Your task to perform on an android device: Open accessibility settings Image 0: 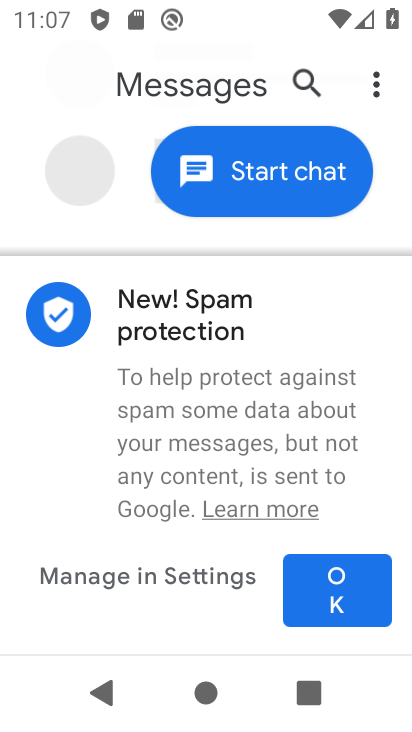
Step 0: drag from (237, 430) to (286, 225)
Your task to perform on an android device: Open accessibility settings Image 1: 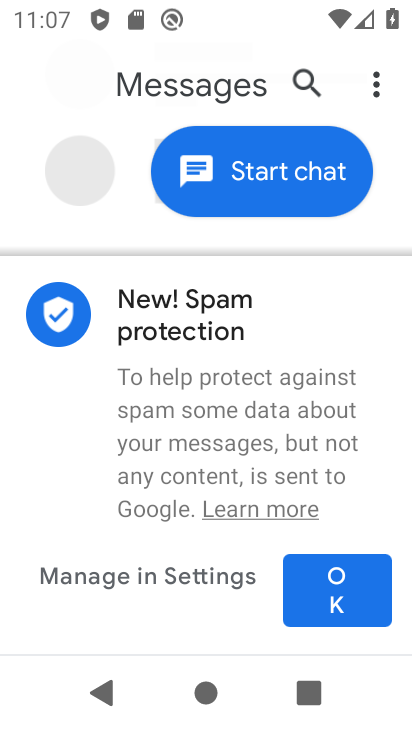
Step 1: press home button
Your task to perform on an android device: Open accessibility settings Image 2: 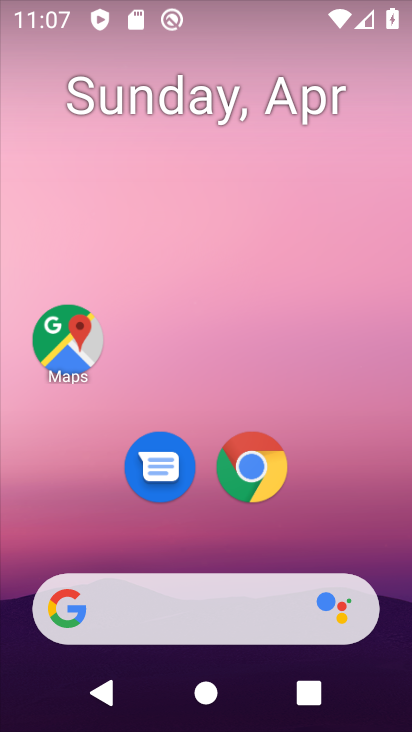
Step 2: drag from (188, 538) to (239, 241)
Your task to perform on an android device: Open accessibility settings Image 3: 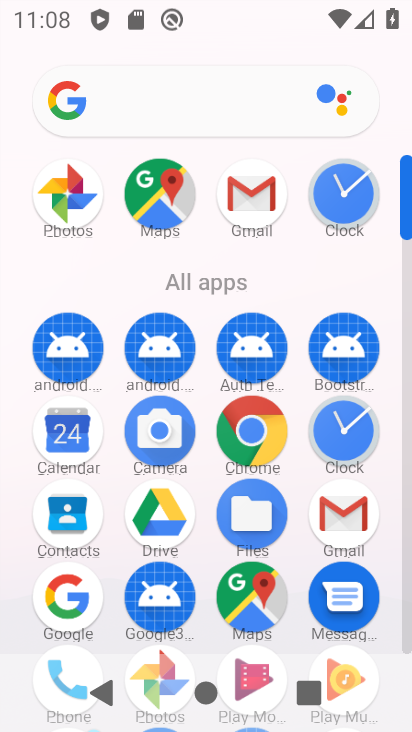
Step 3: drag from (203, 635) to (246, 203)
Your task to perform on an android device: Open accessibility settings Image 4: 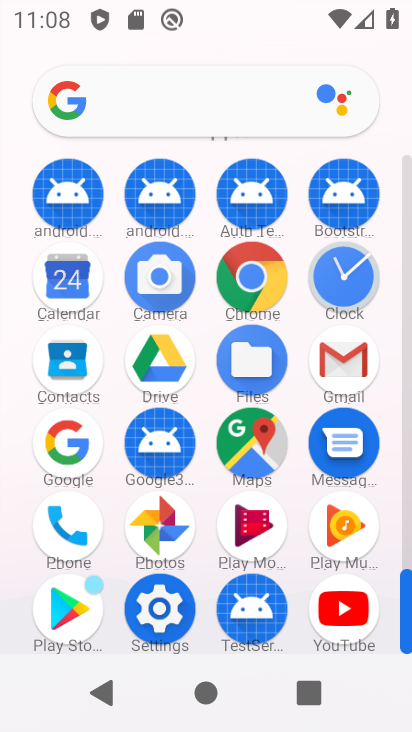
Step 4: click (160, 611)
Your task to perform on an android device: Open accessibility settings Image 5: 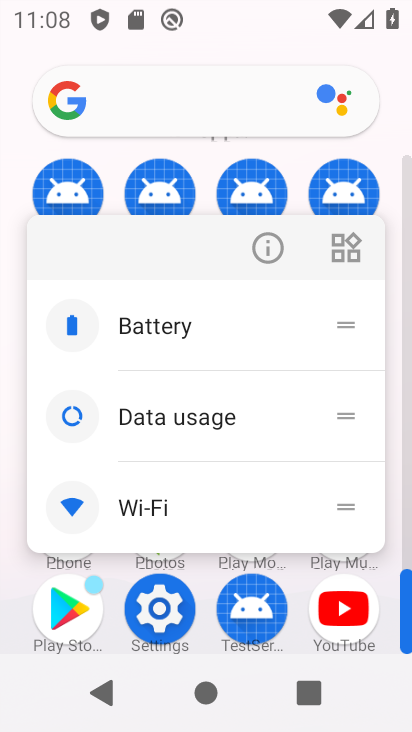
Step 5: click (264, 247)
Your task to perform on an android device: Open accessibility settings Image 6: 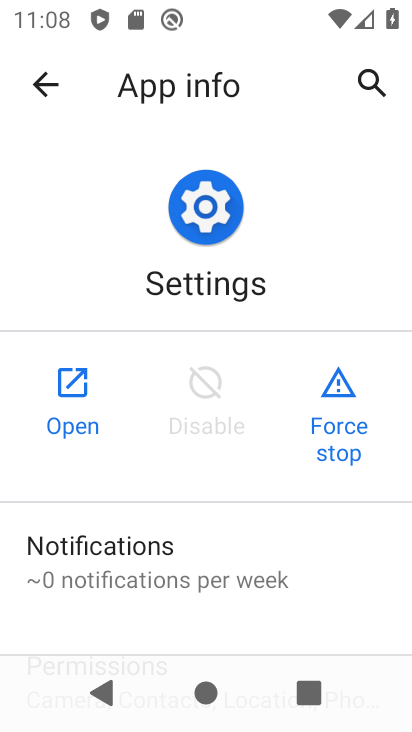
Step 6: click (91, 394)
Your task to perform on an android device: Open accessibility settings Image 7: 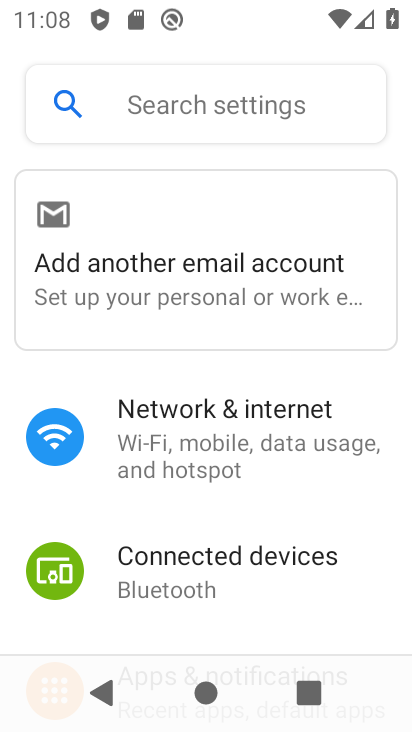
Step 7: drag from (224, 599) to (373, 54)
Your task to perform on an android device: Open accessibility settings Image 8: 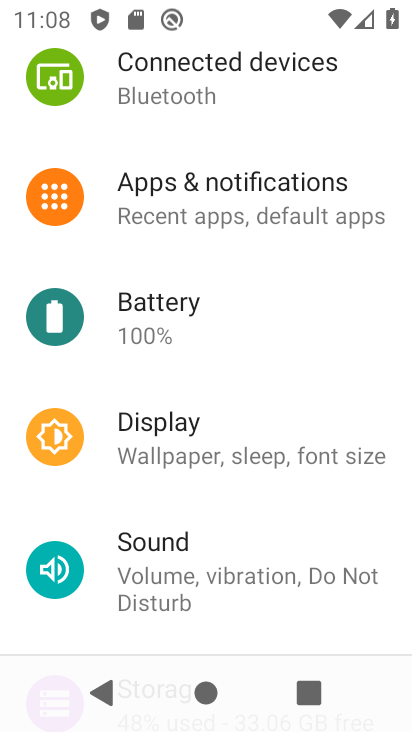
Step 8: drag from (169, 625) to (256, 109)
Your task to perform on an android device: Open accessibility settings Image 9: 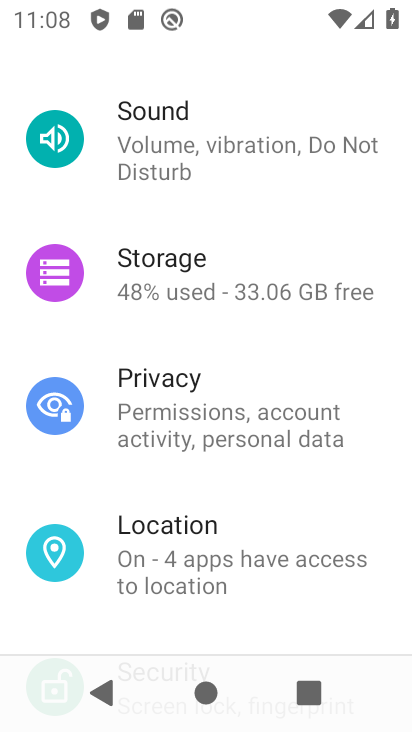
Step 9: drag from (162, 580) to (241, 134)
Your task to perform on an android device: Open accessibility settings Image 10: 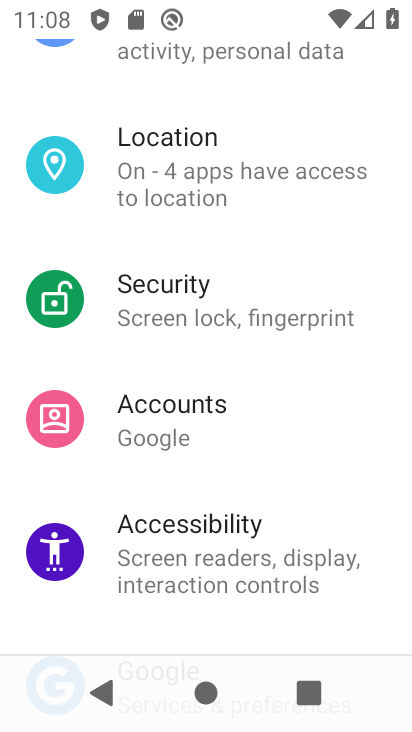
Step 10: click (195, 573)
Your task to perform on an android device: Open accessibility settings Image 11: 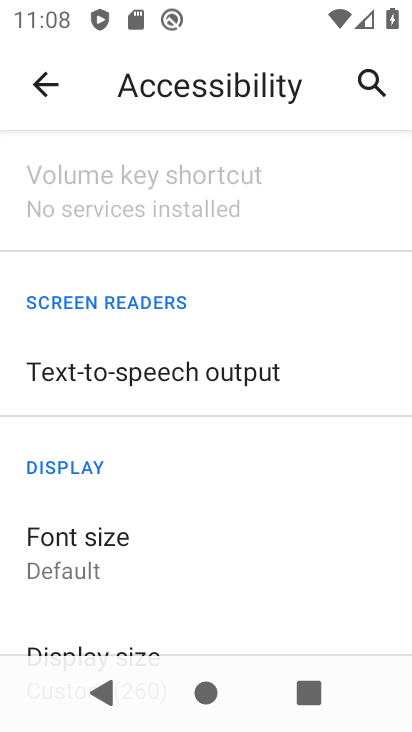
Step 11: task complete